Your task to perform on an android device: Go to network settings Image 0: 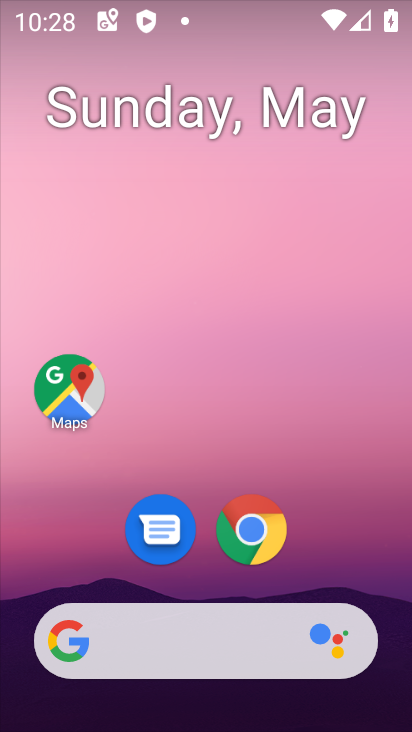
Step 0: drag from (161, 613) to (132, 118)
Your task to perform on an android device: Go to network settings Image 1: 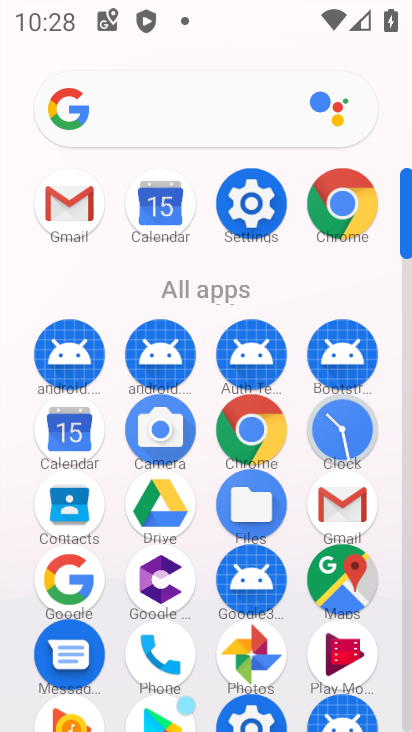
Step 1: click (275, 213)
Your task to perform on an android device: Go to network settings Image 2: 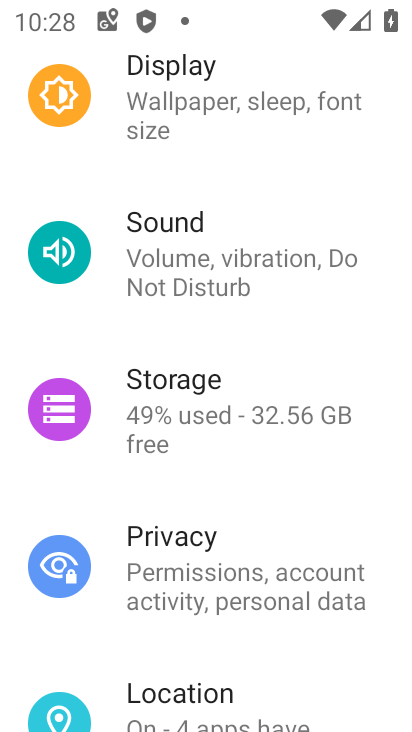
Step 2: drag from (211, 205) to (123, 687)
Your task to perform on an android device: Go to network settings Image 3: 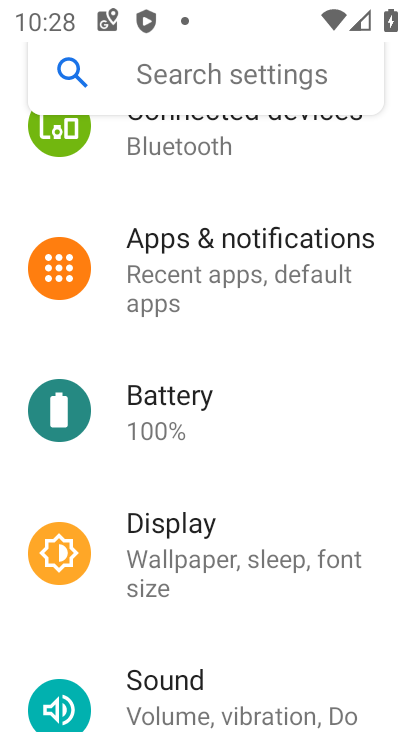
Step 3: drag from (217, 176) to (251, 692)
Your task to perform on an android device: Go to network settings Image 4: 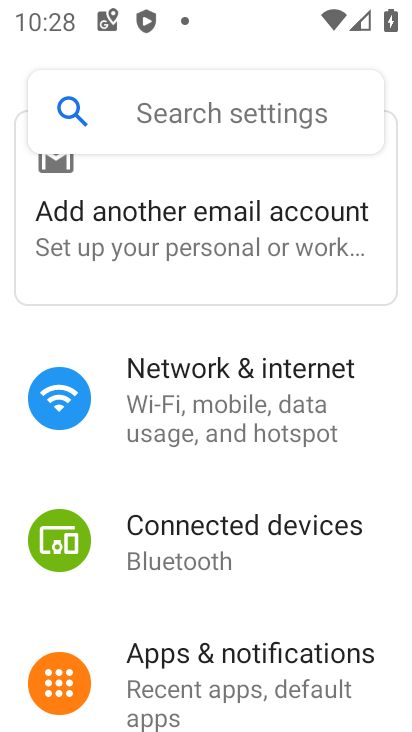
Step 4: click (209, 399)
Your task to perform on an android device: Go to network settings Image 5: 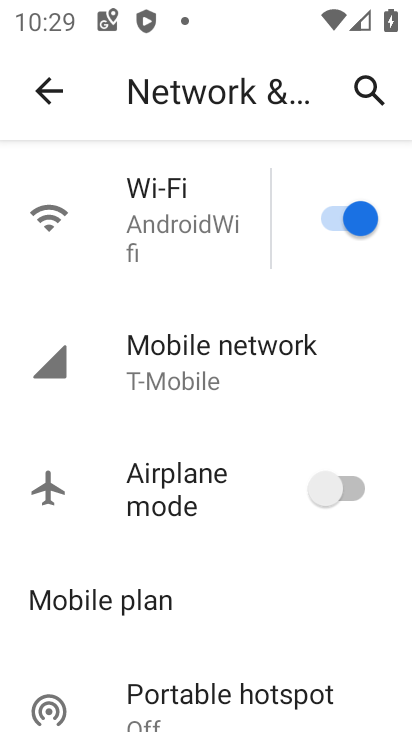
Step 5: task complete